Your task to perform on an android device: toggle translation in the chrome app Image 0: 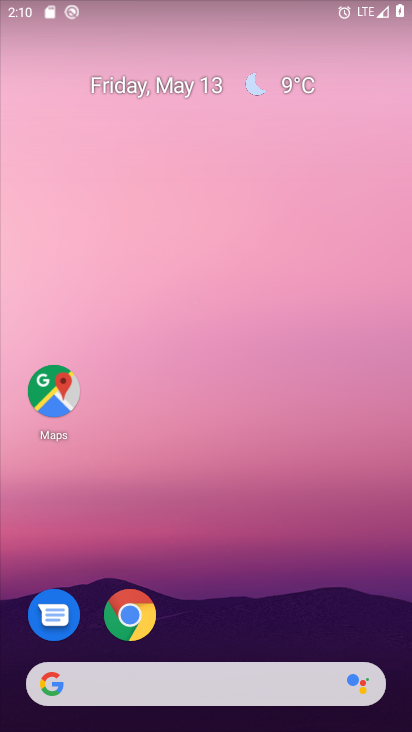
Step 0: click (144, 619)
Your task to perform on an android device: toggle translation in the chrome app Image 1: 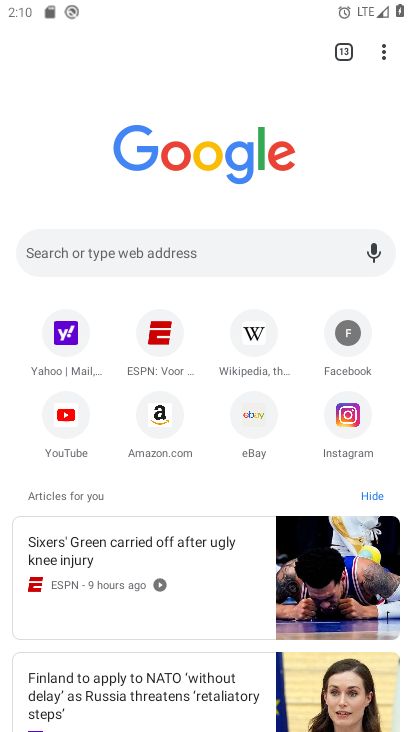
Step 1: click (385, 48)
Your task to perform on an android device: toggle translation in the chrome app Image 2: 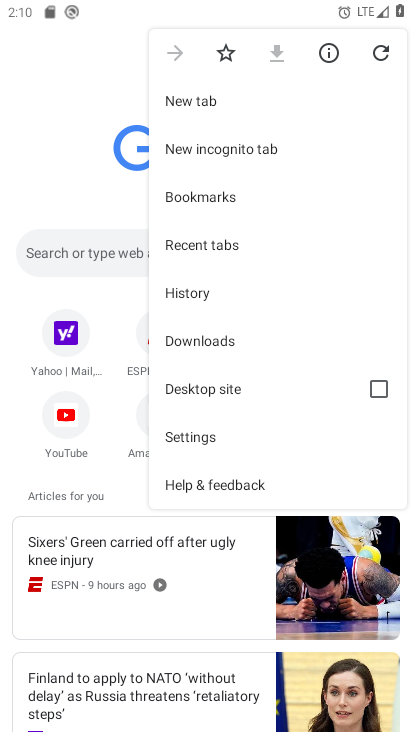
Step 2: click (217, 435)
Your task to perform on an android device: toggle translation in the chrome app Image 3: 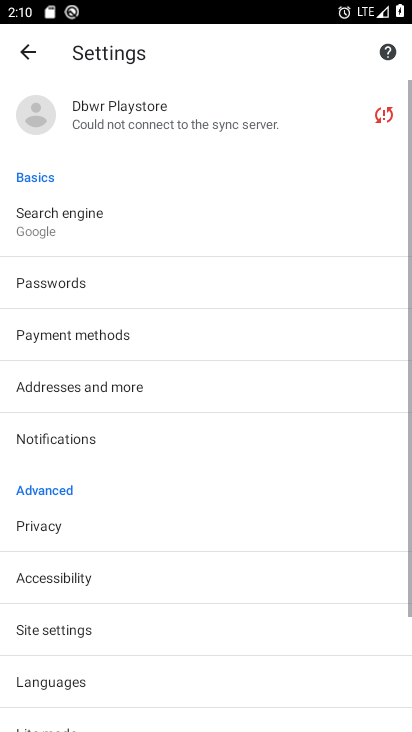
Step 3: drag from (194, 592) to (220, 467)
Your task to perform on an android device: toggle translation in the chrome app Image 4: 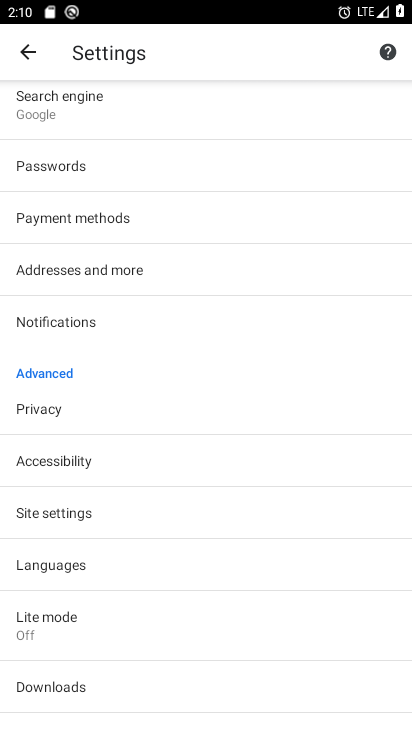
Step 4: click (203, 569)
Your task to perform on an android device: toggle translation in the chrome app Image 5: 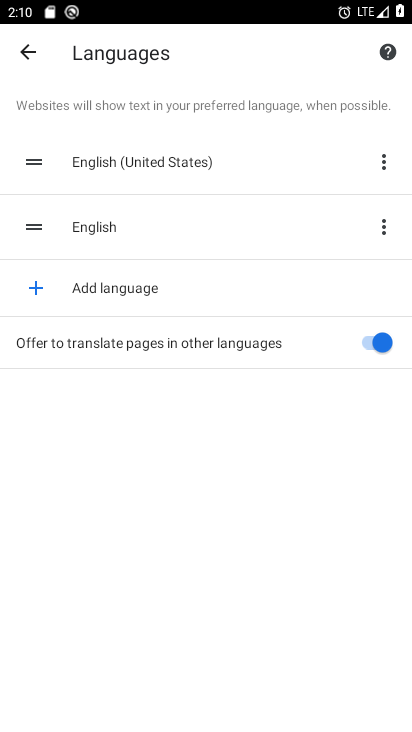
Step 5: click (376, 336)
Your task to perform on an android device: toggle translation in the chrome app Image 6: 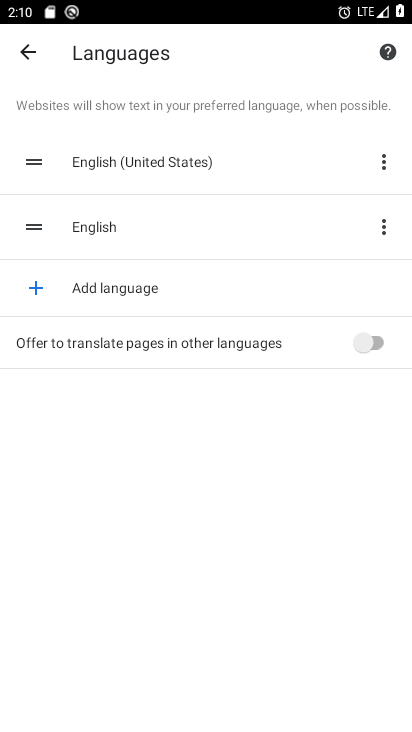
Step 6: task complete